Your task to perform on an android device: find photos in the google photos app Image 0: 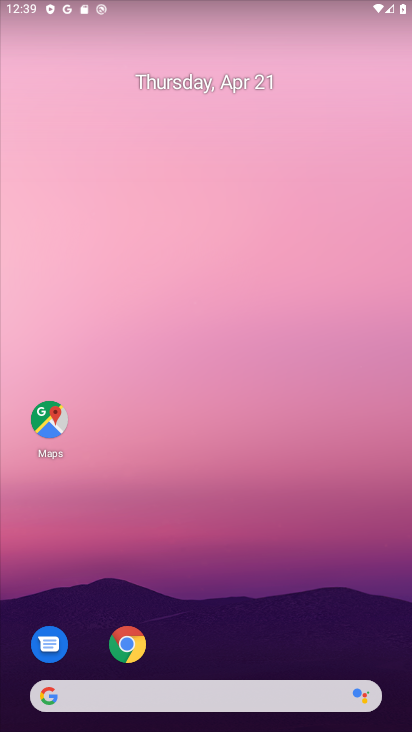
Step 0: drag from (281, 626) to (196, 63)
Your task to perform on an android device: find photos in the google photos app Image 1: 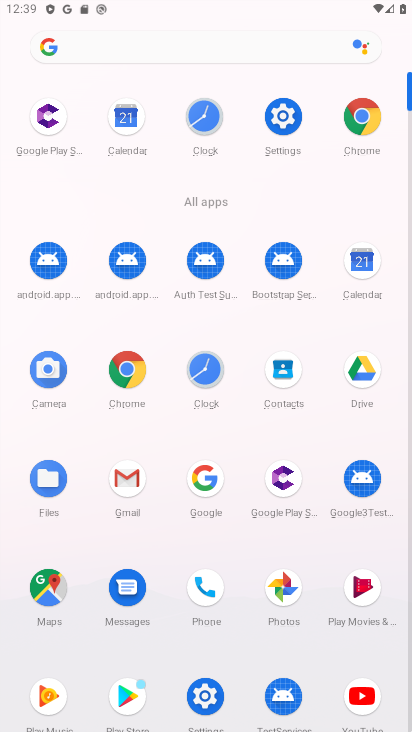
Step 1: click (272, 596)
Your task to perform on an android device: find photos in the google photos app Image 2: 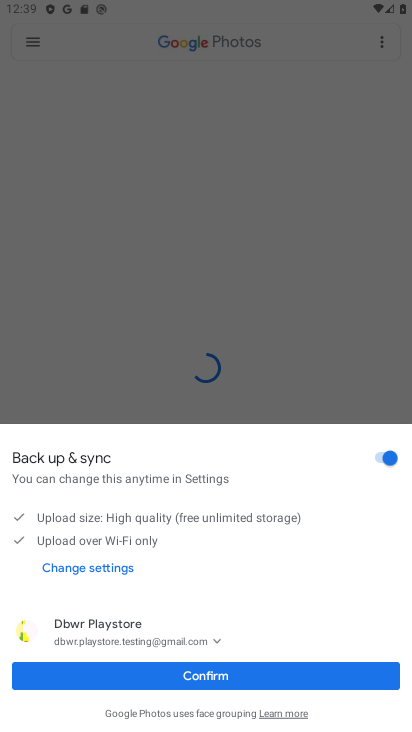
Step 2: click (298, 674)
Your task to perform on an android device: find photos in the google photos app Image 3: 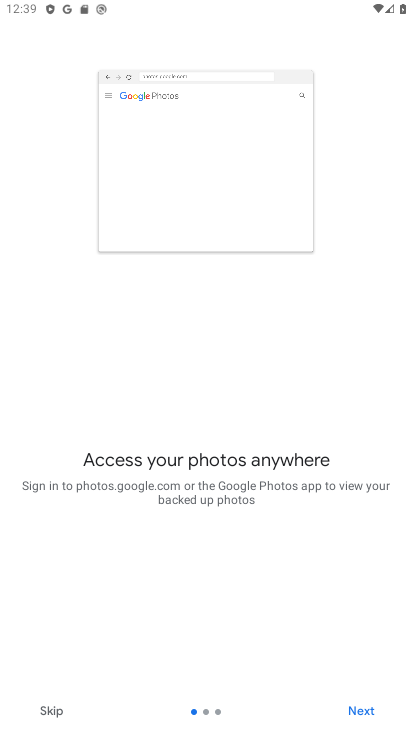
Step 3: click (359, 709)
Your task to perform on an android device: find photos in the google photos app Image 4: 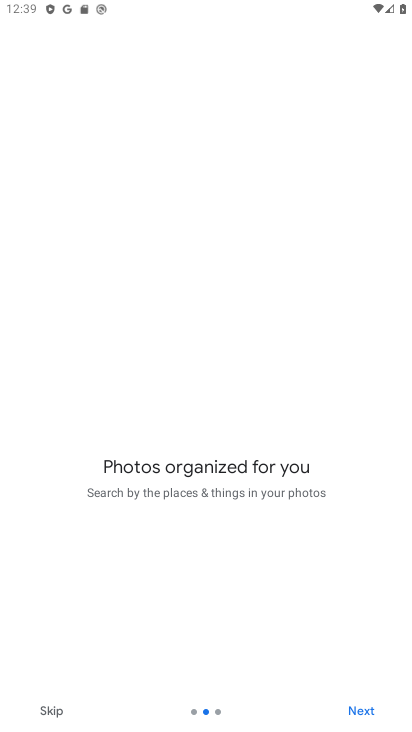
Step 4: click (357, 708)
Your task to perform on an android device: find photos in the google photos app Image 5: 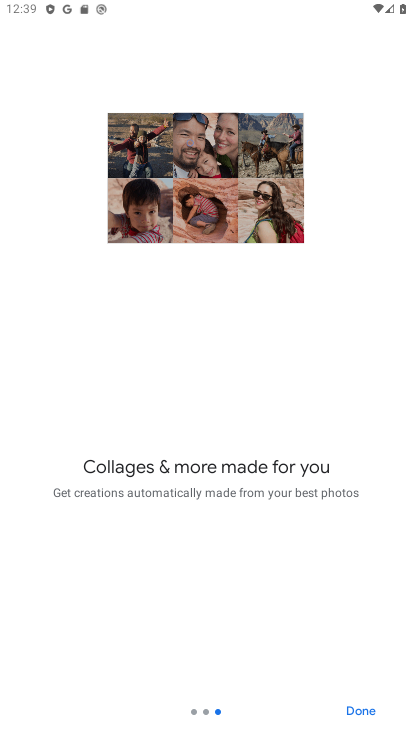
Step 5: click (356, 707)
Your task to perform on an android device: find photos in the google photos app Image 6: 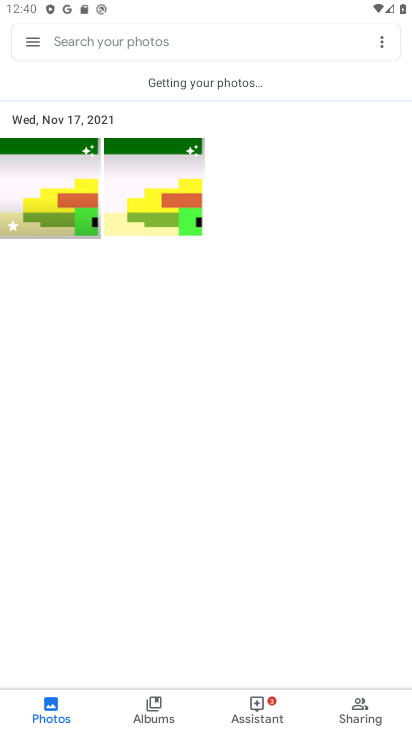
Step 6: task complete